Your task to perform on an android device: Open Youtube and go to "Your channel" Image 0: 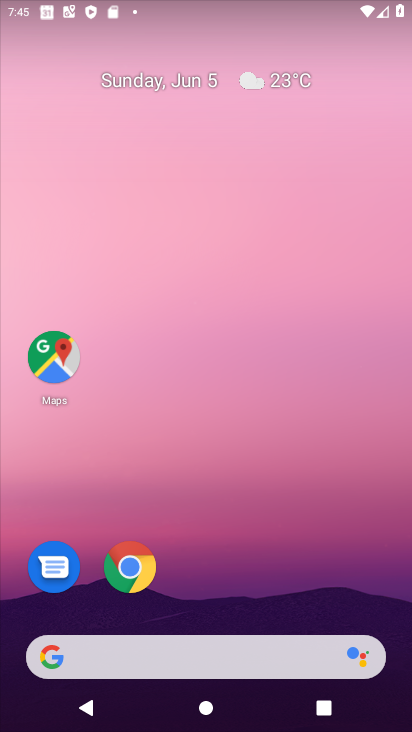
Step 0: drag from (400, 599) to (363, 22)
Your task to perform on an android device: Open Youtube and go to "Your channel" Image 1: 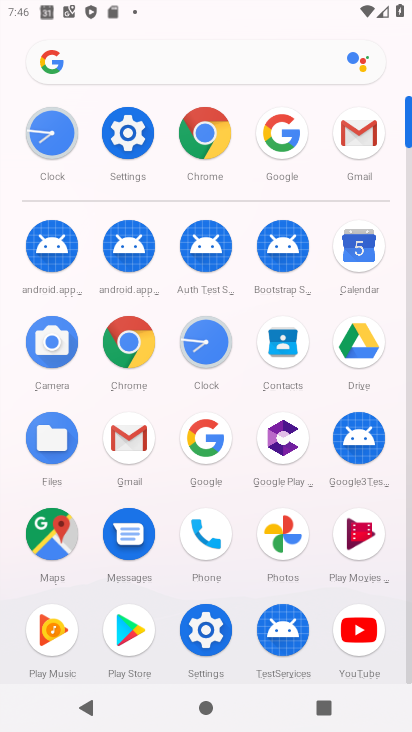
Step 1: click (350, 624)
Your task to perform on an android device: Open Youtube and go to "Your channel" Image 2: 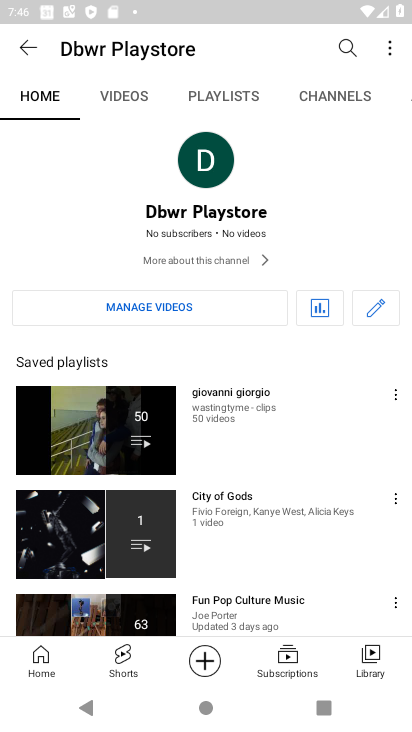
Step 2: task complete